Your task to perform on an android device: Open calendar and show me the third week of next month Image 0: 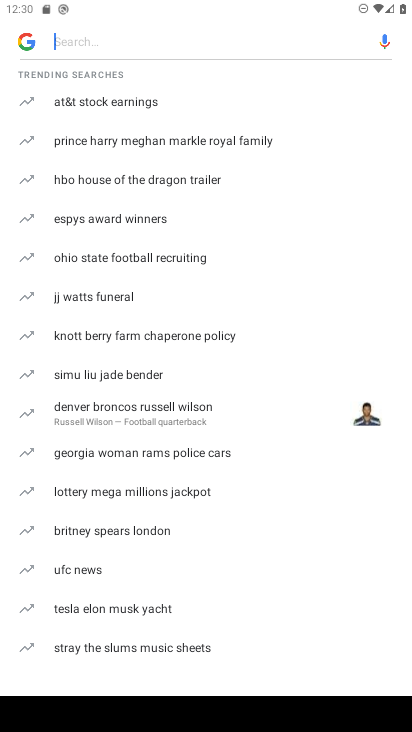
Step 0: press home button
Your task to perform on an android device: Open calendar and show me the third week of next month Image 1: 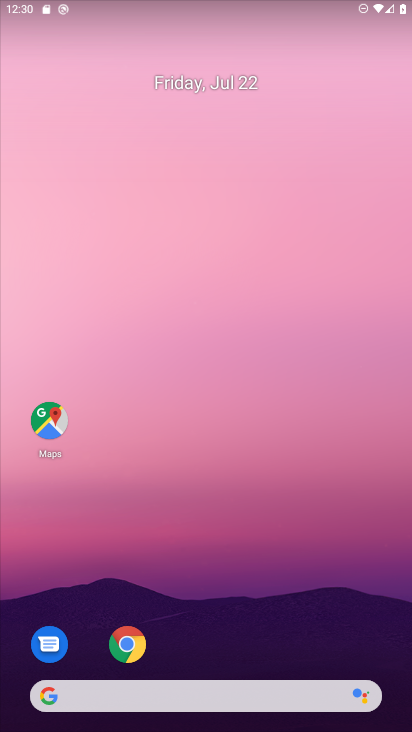
Step 1: click (190, 83)
Your task to perform on an android device: Open calendar and show me the third week of next month Image 2: 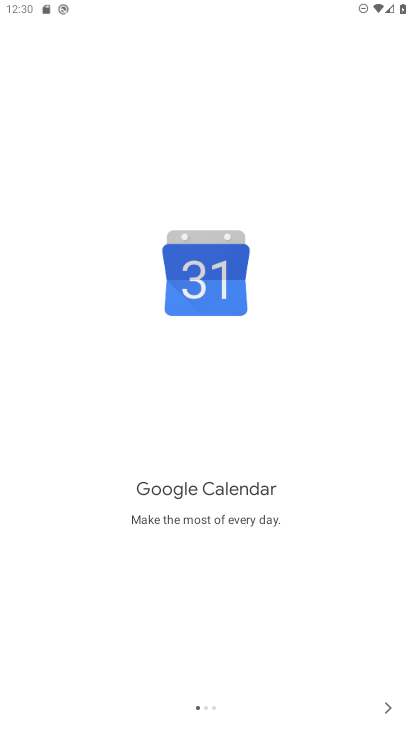
Step 2: click (389, 708)
Your task to perform on an android device: Open calendar and show me the third week of next month Image 3: 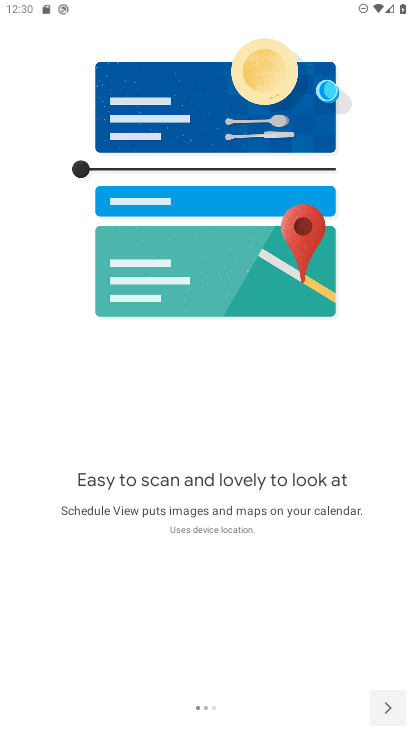
Step 3: click (389, 708)
Your task to perform on an android device: Open calendar and show me the third week of next month Image 4: 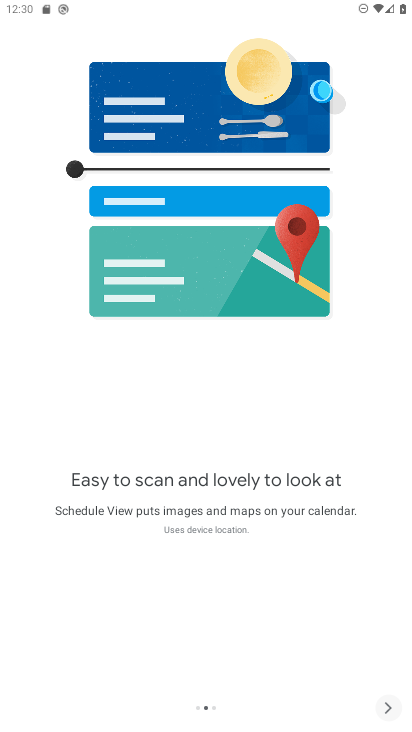
Step 4: click (389, 708)
Your task to perform on an android device: Open calendar and show me the third week of next month Image 5: 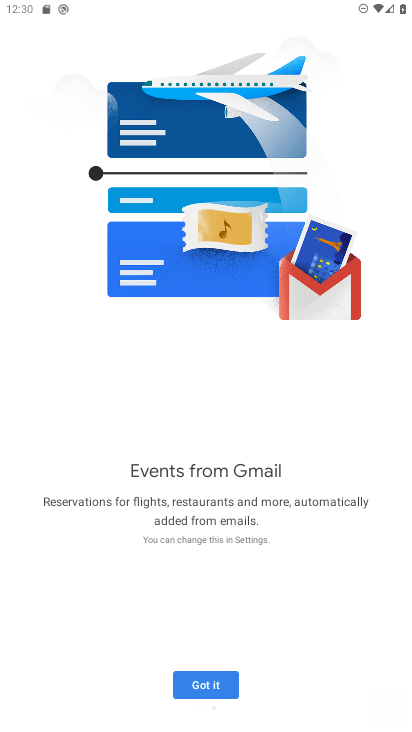
Step 5: click (389, 708)
Your task to perform on an android device: Open calendar and show me the third week of next month Image 6: 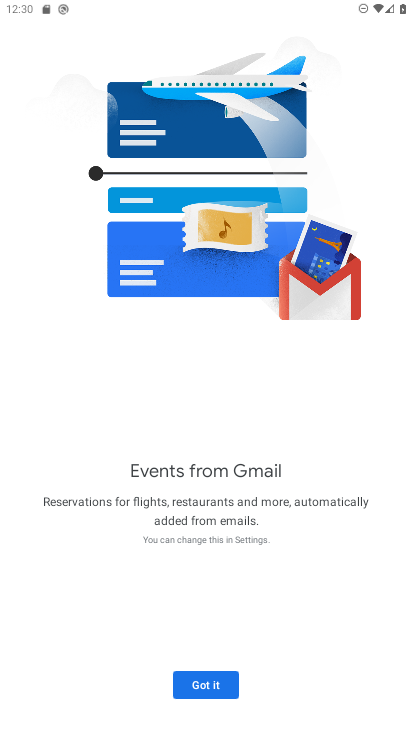
Step 6: click (389, 708)
Your task to perform on an android device: Open calendar and show me the third week of next month Image 7: 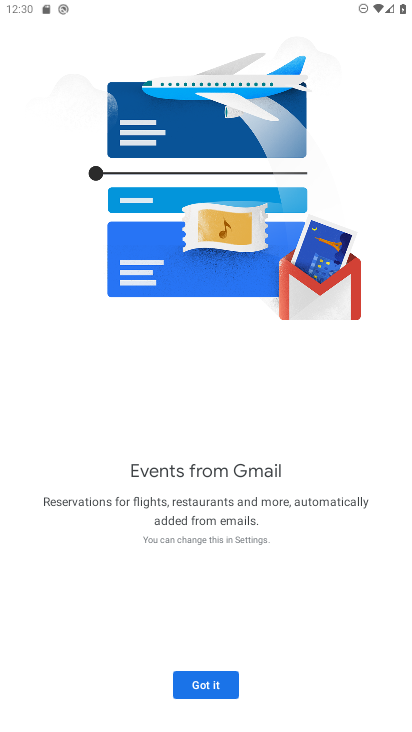
Step 7: click (196, 678)
Your task to perform on an android device: Open calendar and show me the third week of next month Image 8: 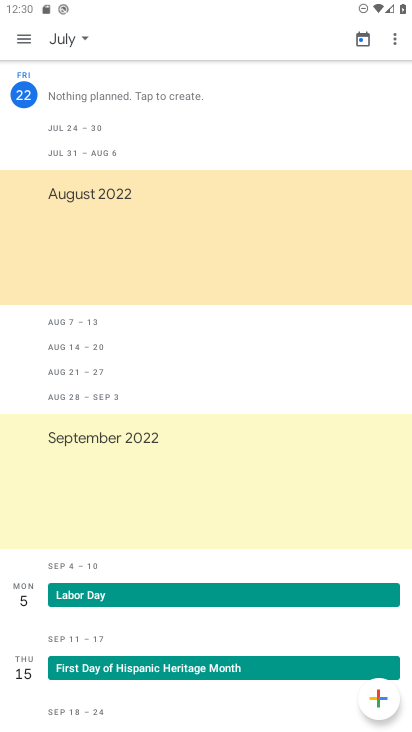
Step 8: click (91, 45)
Your task to perform on an android device: Open calendar and show me the third week of next month Image 9: 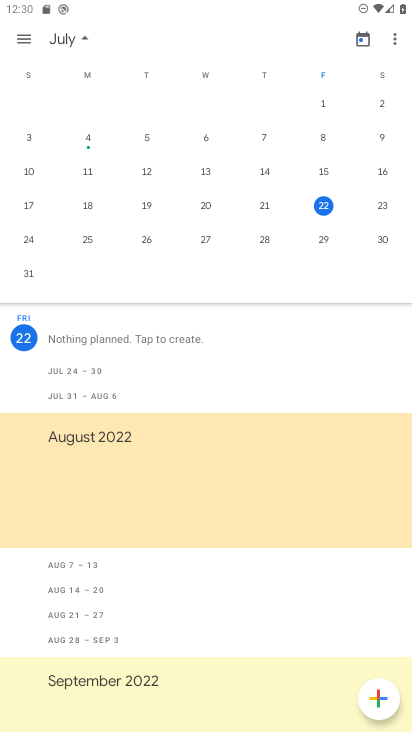
Step 9: drag from (376, 254) to (12, 240)
Your task to perform on an android device: Open calendar and show me the third week of next month Image 10: 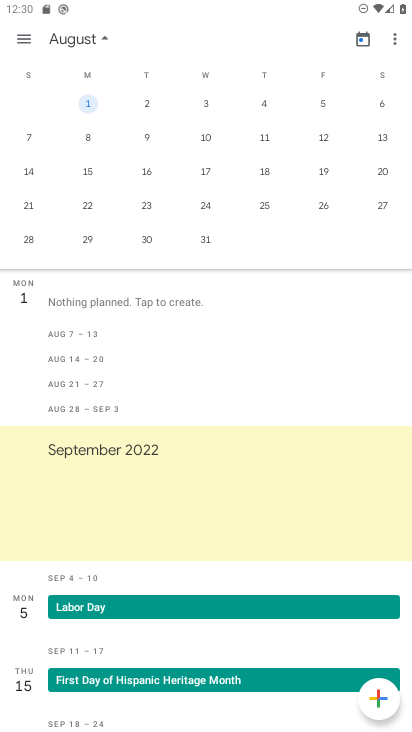
Step 10: click (323, 176)
Your task to perform on an android device: Open calendar and show me the third week of next month Image 11: 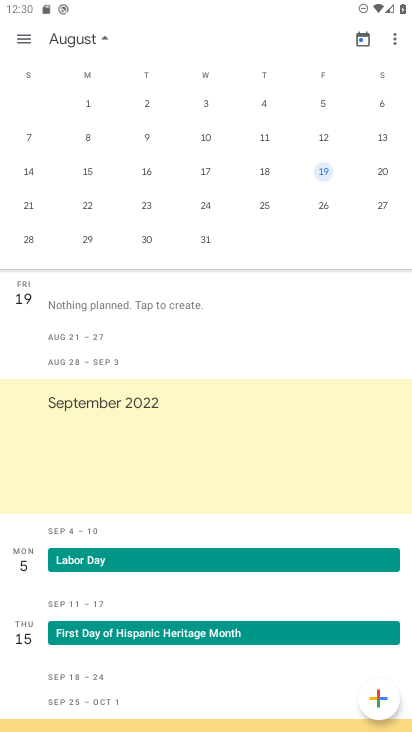
Step 11: task complete